Your task to perform on an android device: Open Google Chrome Image 0: 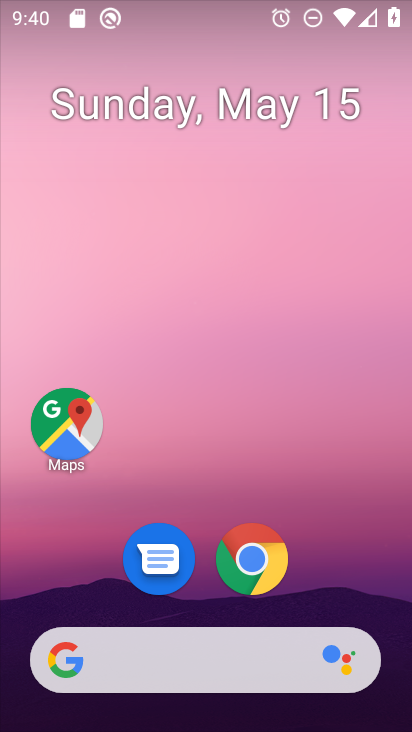
Step 0: click (285, 546)
Your task to perform on an android device: Open Google Chrome Image 1: 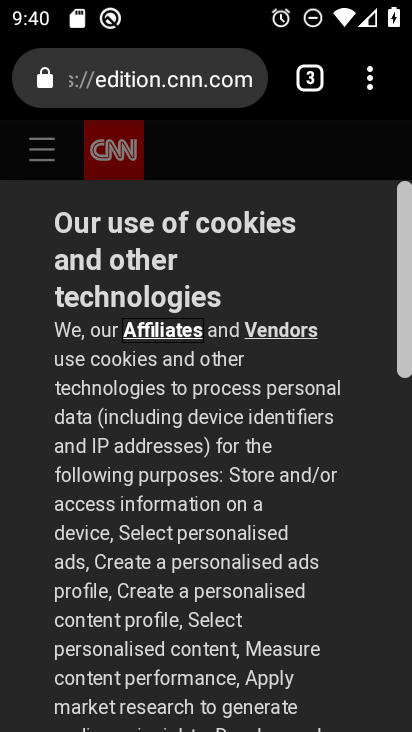
Step 1: task complete